Your task to perform on an android device: Add lenovo thinkpad to the cart on bestbuy Image 0: 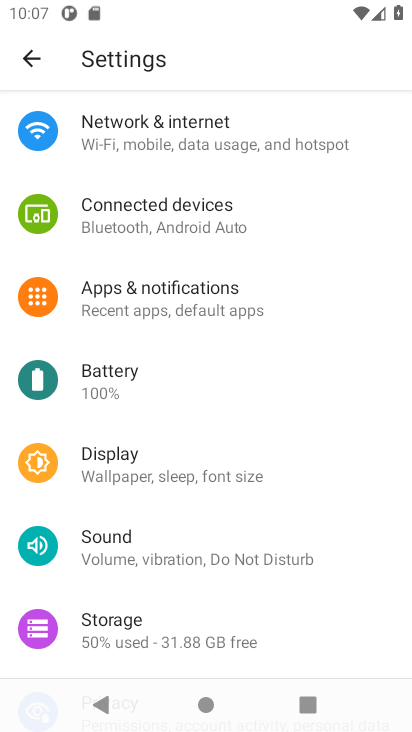
Step 0: press home button
Your task to perform on an android device: Add lenovo thinkpad to the cart on bestbuy Image 1: 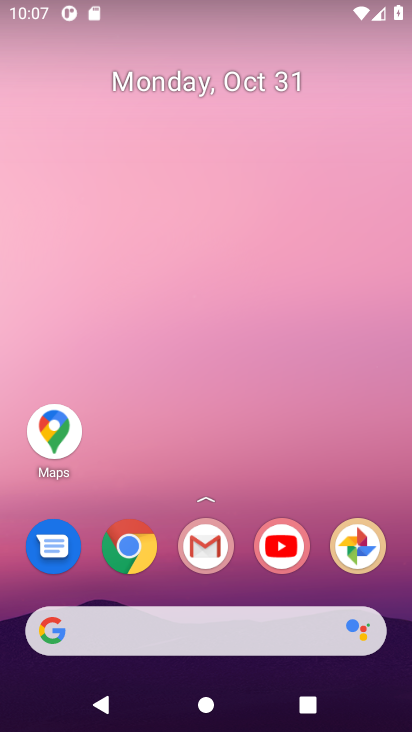
Step 1: click (141, 548)
Your task to perform on an android device: Add lenovo thinkpad to the cart on bestbuy Image 2: 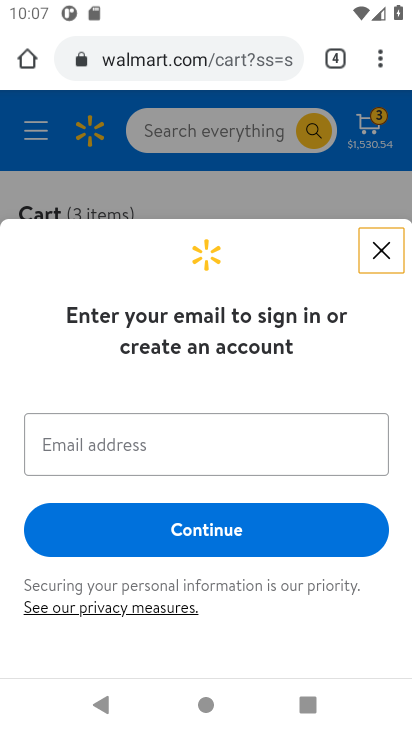
Step 2: click (175, 60)
Your task to perform on an android device: Add lenovo thinkpad to the cart on bestbuy Image 3: 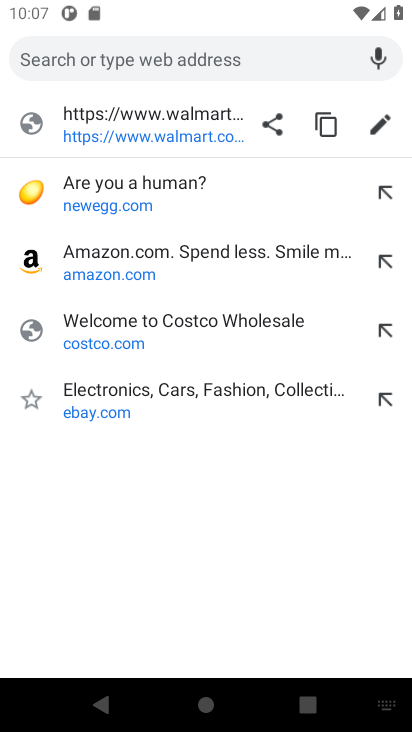
Step 3: type "bestbuy"
Your task to perform on an android device: Add lenovo thinkpad to the cart on bestbuy Image 4: 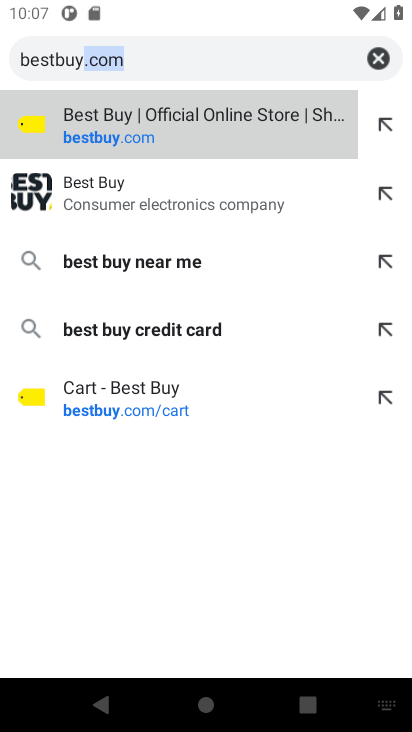
Step 4: click (157, 137)
Your task to perform on an android device: Add lenovo thinkpad to the cart on bestbuy Image 5: 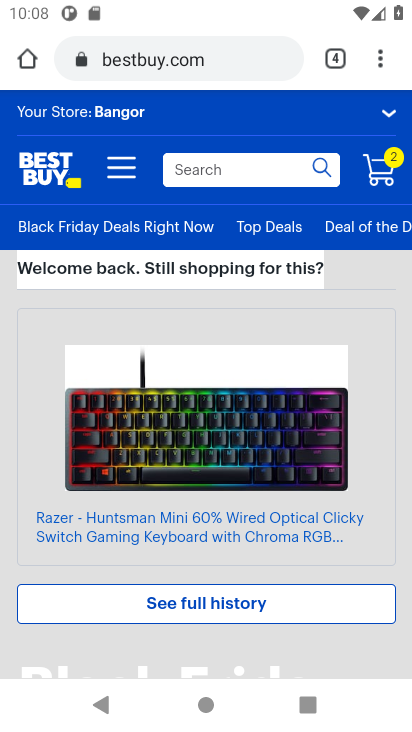
Step 5: click (252, 179)
Your task to perform on an android device: Add lenovo thinkpad to the cart on bestbuy Image 6: 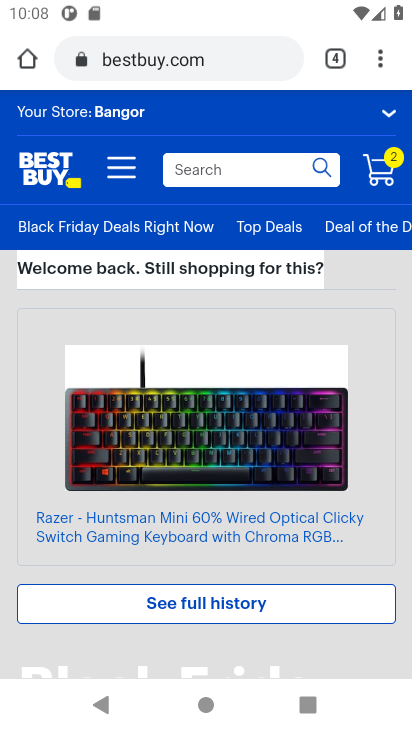
Step 6: click (245, 172)
Your task to perform on an android device: Add lenovo thinkpad to the cart on bestbuy Image 7: 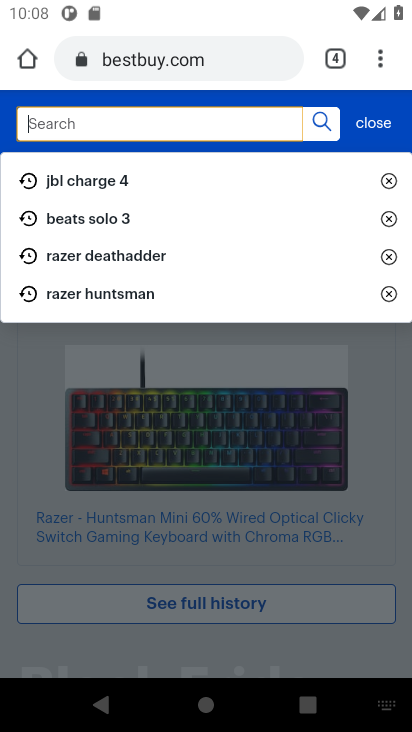
Step 7: type "lenovo thinkpad"
Your task to perform on an android device: Add lenovo thinkpad to the cart on bestbuy Image 8: 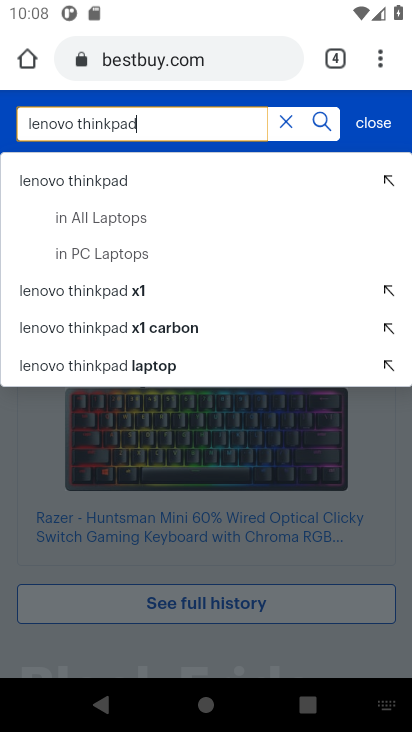
Step 8: press enter
Your task to perform on an android device: Add lenovo thinkpad to the cart on bestbuy Image 9: 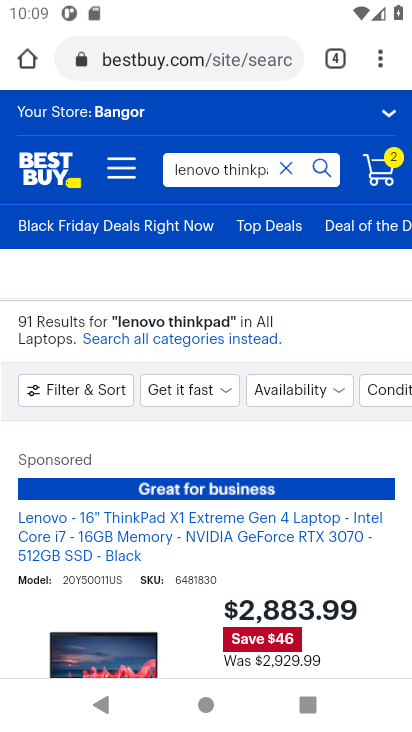
Step 9: drag from (130, 613) to (178, 290)
Your task to perform on an android device: Add lenovo thinkpad to the cart on bestbuy Image 10: 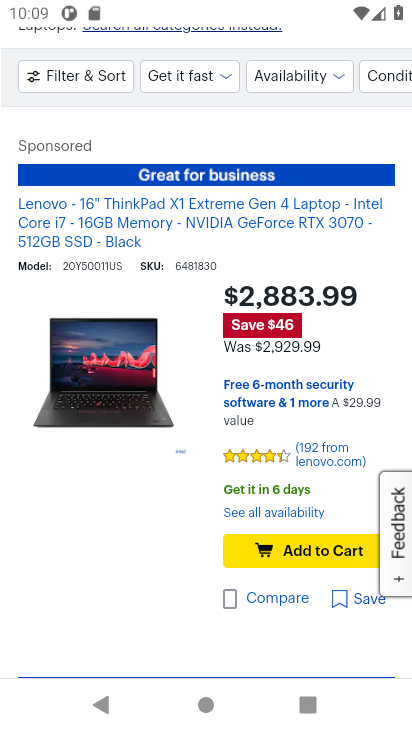
Step 10: click (160, 445)
Your task to perform on an android device: Add lenovo thinkpad to the cart on bestbuy Image 11: 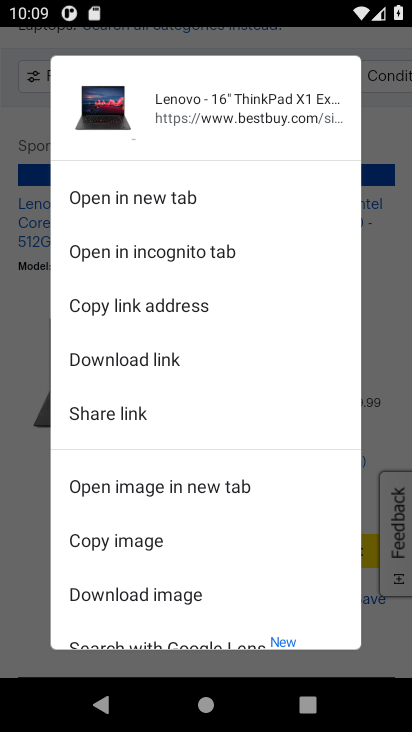
Step 11: click (394, 336)
Your task to perform on an android device: Add lenovo thinkpad to the cart on bestbuy Image 12: 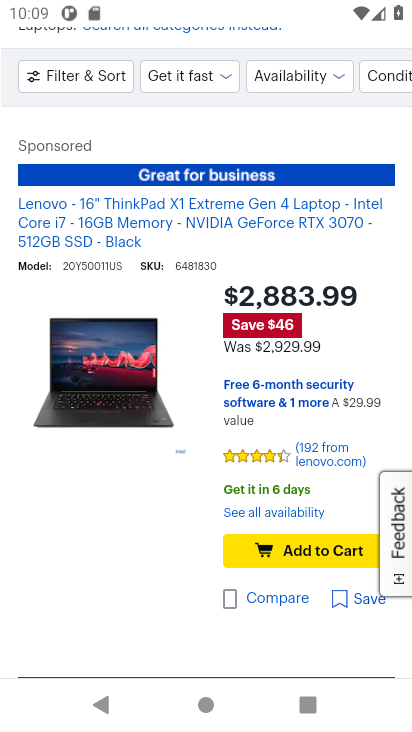
Step 12: click (275, 551)
Your task to perform on an android device: Add lenovo thinkpad to the cart on bestbuy Image 13: 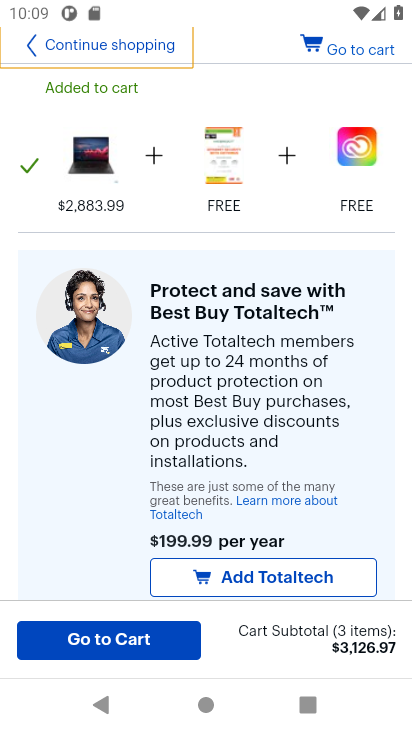
Step 13: click (135, 643)
Your task to perform on an android device: Add lenovo thinkpad to the cart on bestbuy Image 14: 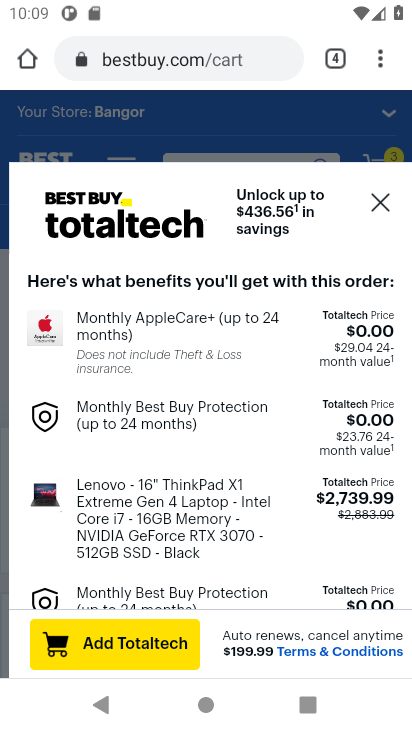
Step 14: click (377, 210)
Your task to perform on an android device: Add lenovo thinkpad to the cart on bestbuy Image 15: 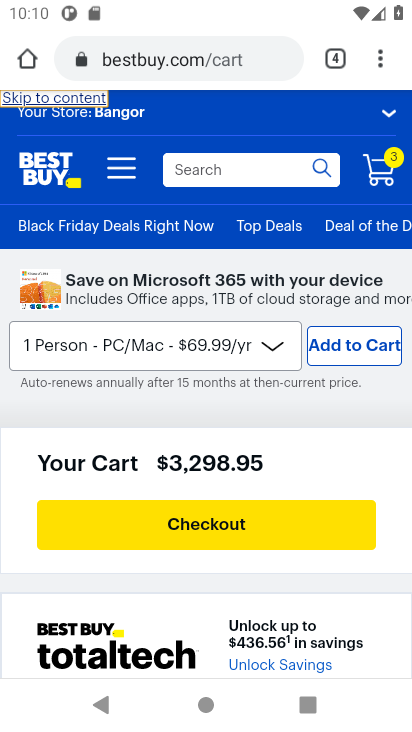
Step 15: task complete